Your task to perform on an android device: turn on sleep mode Image 0: 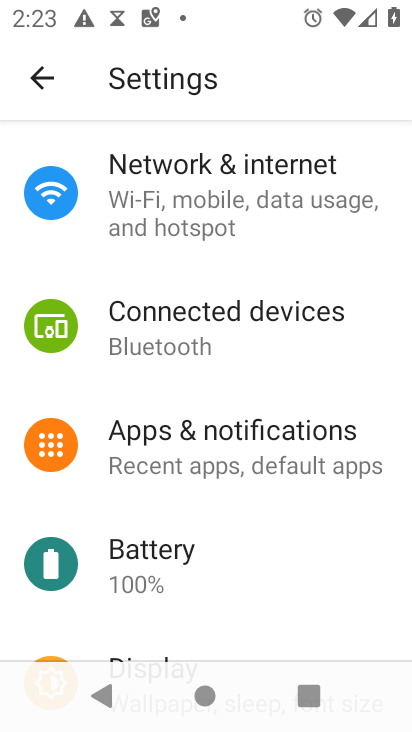
Step 0: drag from (261, 299) to (163, 699)
Your task to perform on an android device: turn on sleep mode Image 1: 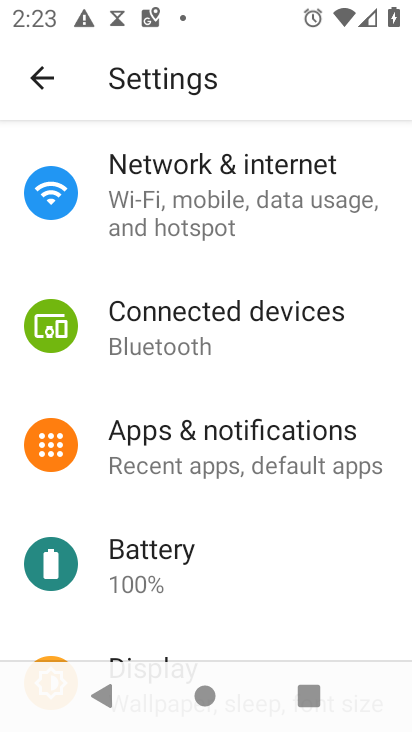
Step 1: drag from (160, 461) to (175, 731)
Your task to perform on an android device: turn on sleep mode Image 2: 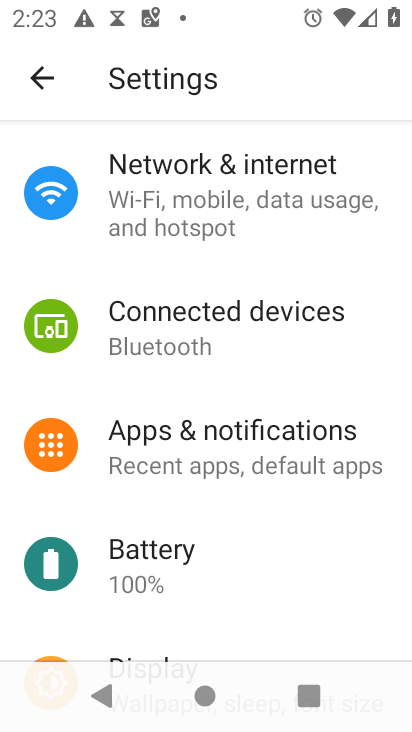
Step 2: press back button
Your task to perform on an android device: turn on sleep mode Image 3: 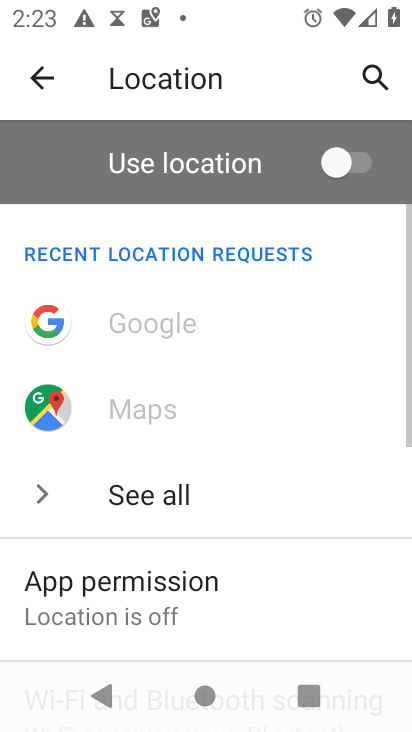
Step 3: press back button
Your task to perform on an android device: turn on sleep mode Image 4: 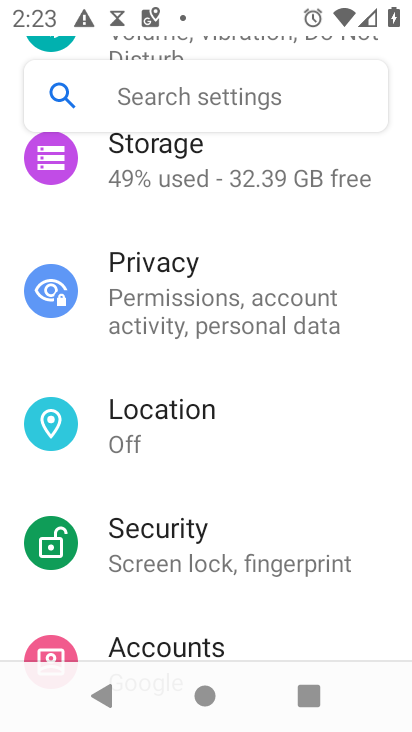
Step 4: click (193, 87)
Your task to perform on an android device: turn on sleep mode Image 5: 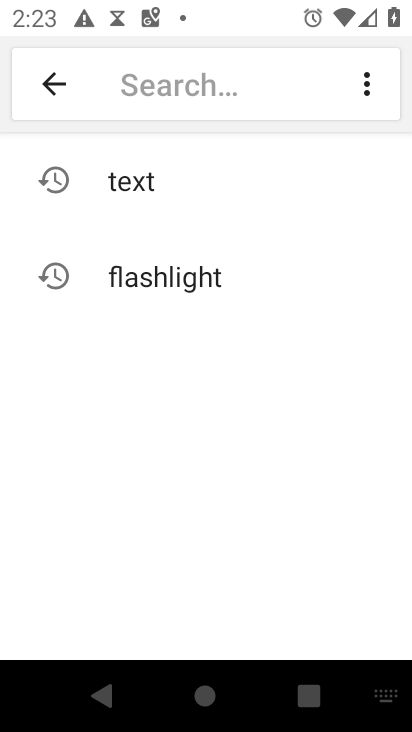
Step 5: type "sleep mode"
Your task to perform on an android device: turn on sleep mode Image 6: 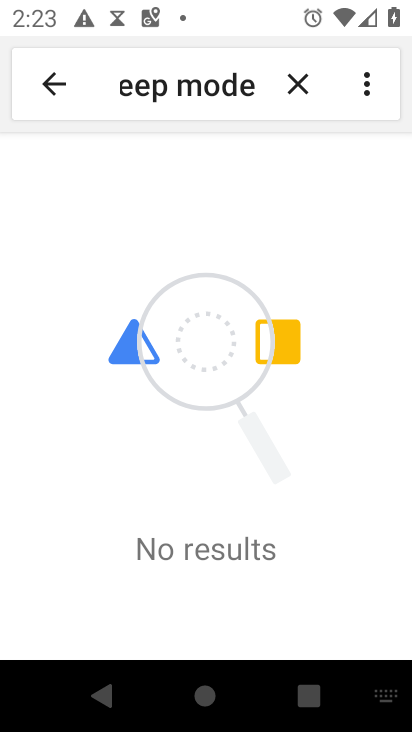
Step 6: task complete